Your task to perform on an android device: empty trash in the gmail app Image 0: 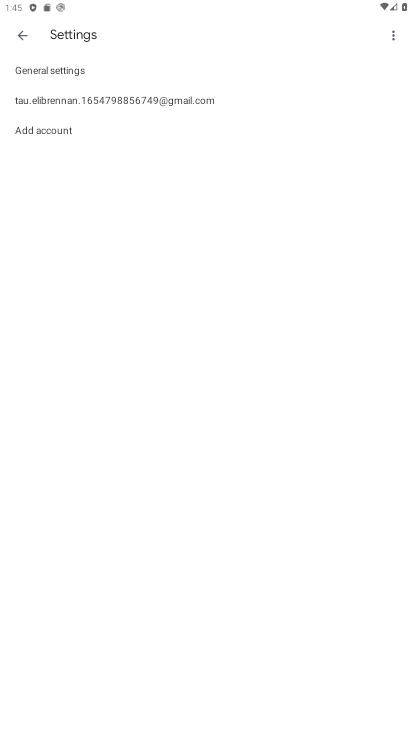
Step 0: click (22, 39)
Your task to perform on an android device: empty trash in the gmail app Image 1: 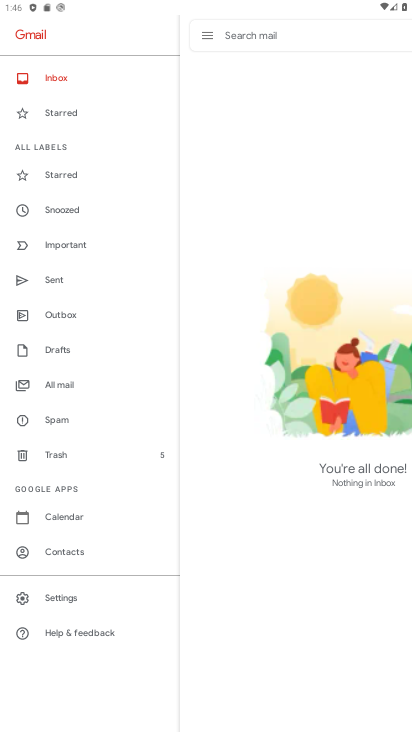
Step 1: click (107, 459)
Your task to perform on an android device: empty trash in the gmail app Image 2: 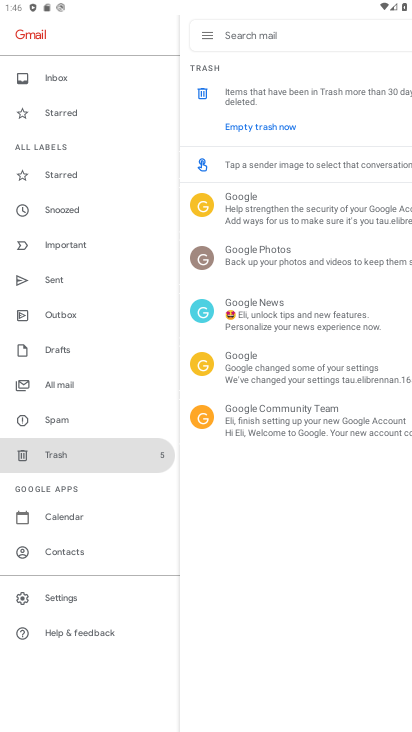
Step 2: click (199, 36)
Your task to perform on an android device: empty trash in the gmail app Image 3: 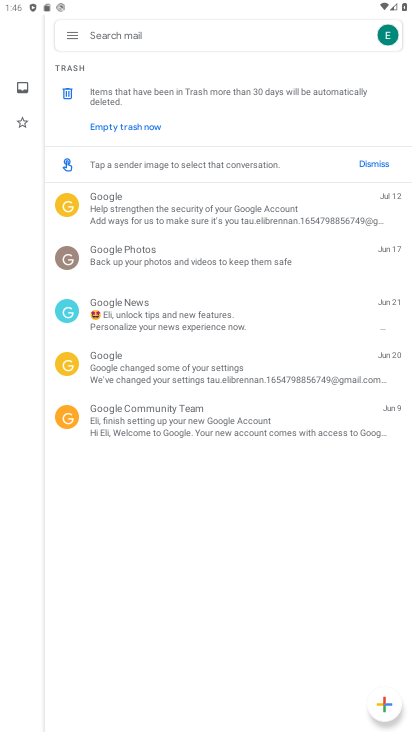
Step 3: click (123, 128)
Your task to perform on an android device: empty trash in the gmail app Image 4: 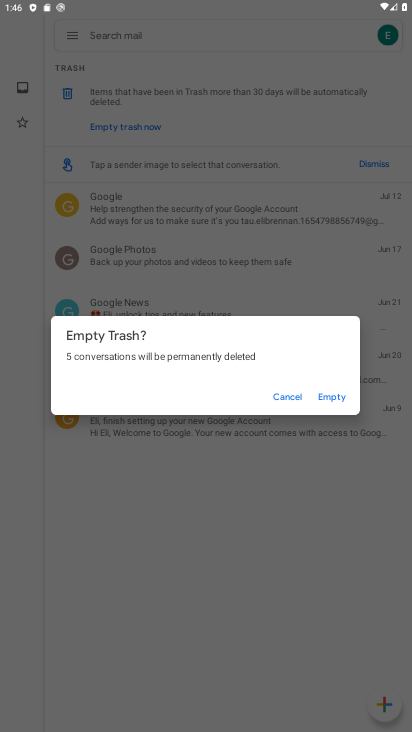
Step 4: click (333, 400)
Your task to perform on an android device: empty trash in the gmail app Image 5: 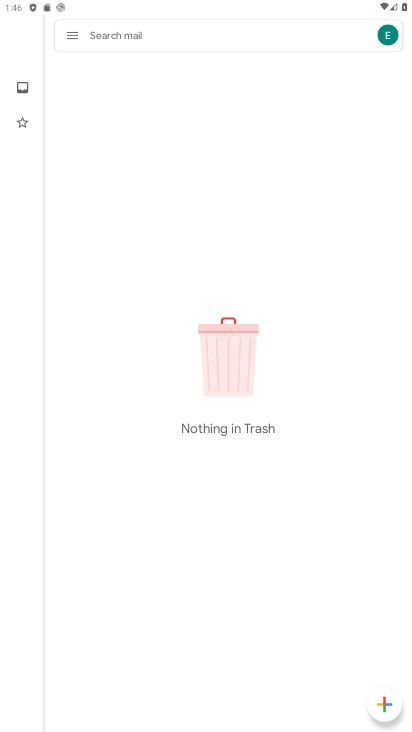
Step 5: task complete